Your task to perform on an android device: Go to location settings Image 0: 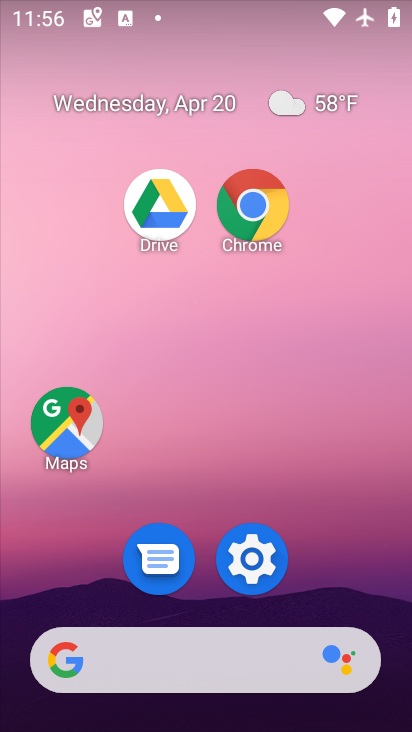
Step 0: drag from (305, 349) to (295, 2)
Your task to perform on an android device: Go to location settings Image 1: 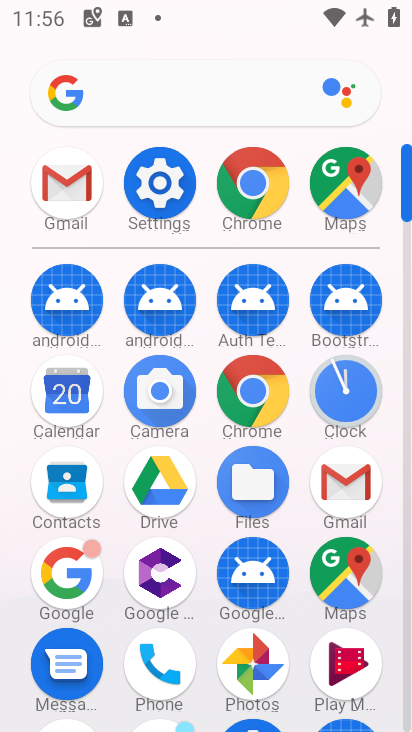
Step 1: drag from (210, 637) to (180, 169)
Your task to perform on an android device: Go to location settings Image 2: 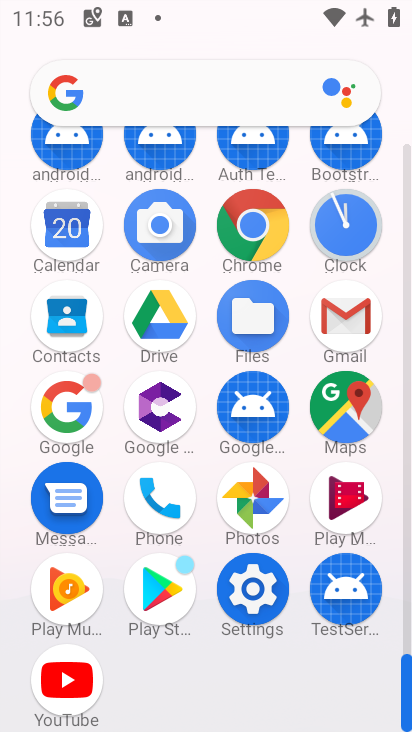
Step 2: click (247, 583)
Your task to perform on an android device: Go to location settings Image 3: 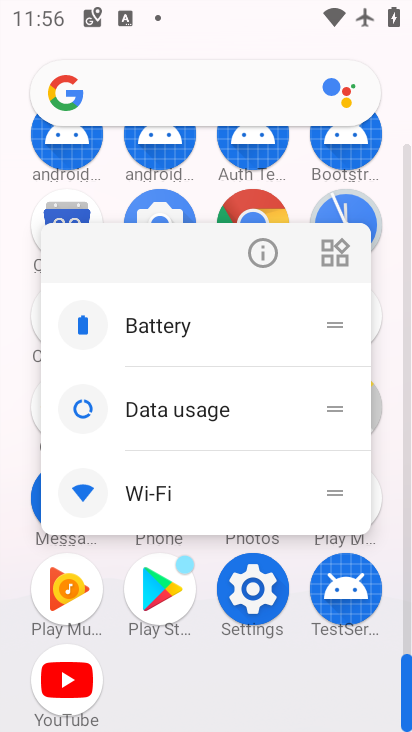
Step 3: click (247, 583)
Your task to perform on an android device: Go to location settings Image 4: 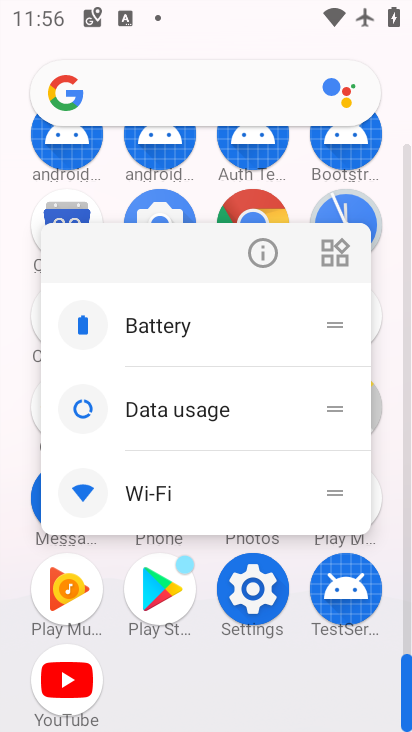
Step 4: click (247, 583)
Your task to perform on an android device: Go to location settings Image 5: 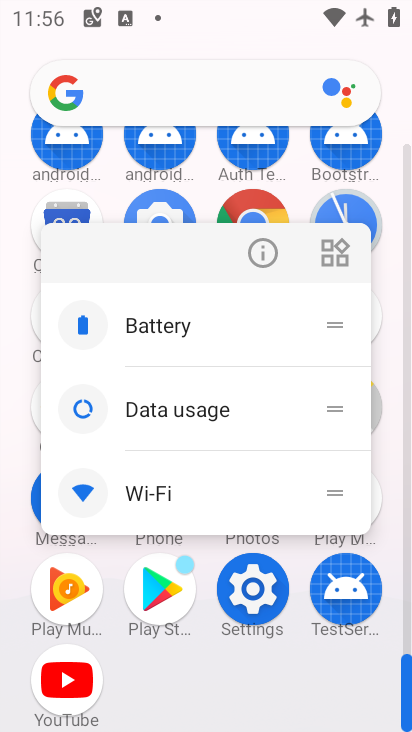
Step 5: click (247, 583)
Your task to perform on an android device: Go to location settings Image 6: 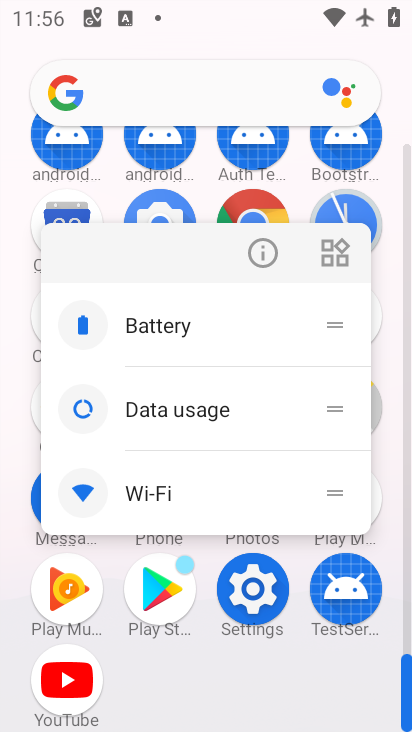
Step 6: click (266, 601)
Your task to perform on an android device: Go to location settings Image 7: 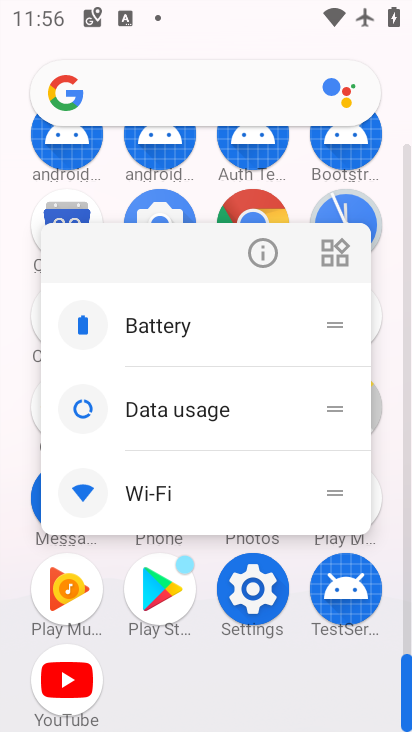
Step 7: click (266, 601)
Your task to perform on an android device: Go to location settings Image 8: 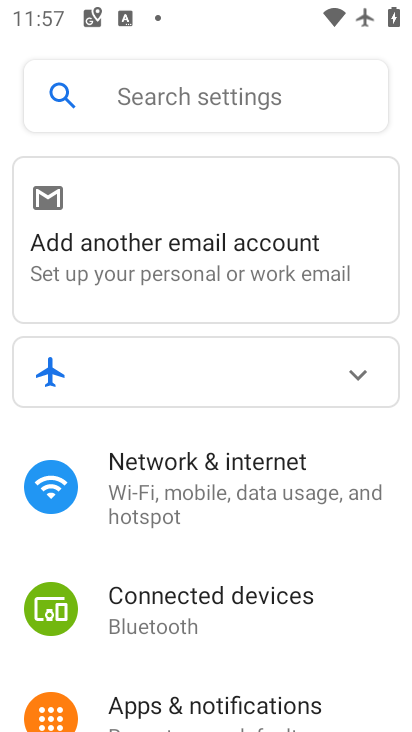
Step 8: drag from (250, 658) to (285, 36)
Your task to perform on an android device: Go to location settings Image 9: 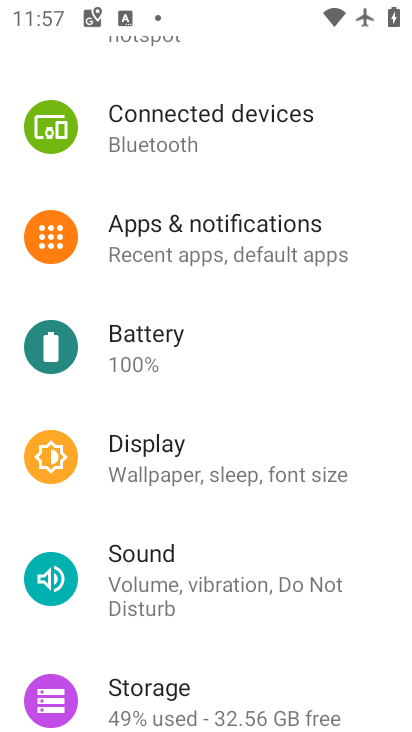
Step 9: drag from (268, 598) to (272, 102)
Your task to perform on an android device: Go to location settings Image 10: 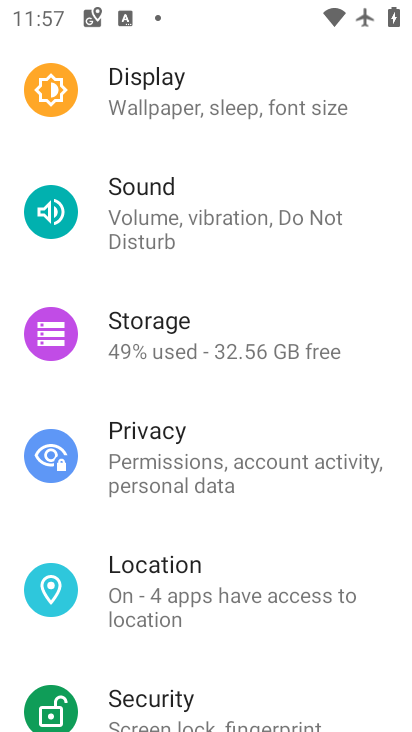
Step 10: click (218, 582)
Your task to perform on an android device: Go to location settings Image 11: 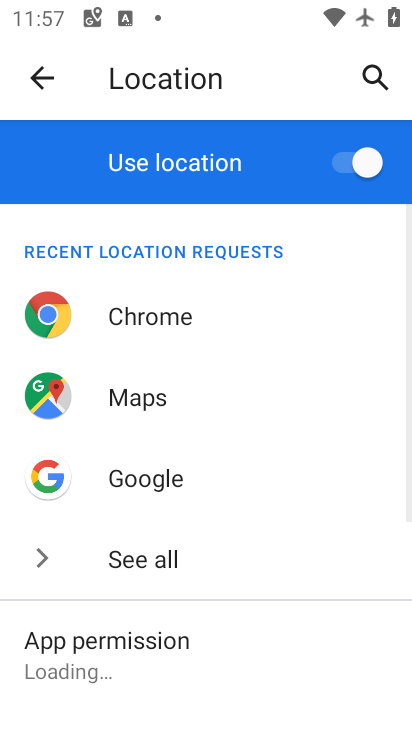
Step 11: task complete